Your task to perform on an android device: Open settings on Google Maps Image 0: 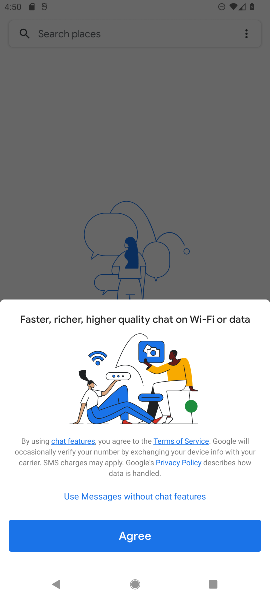
Step 0: press back button
Your task to perform on an android device: Open settings on Google Maps Image 1: 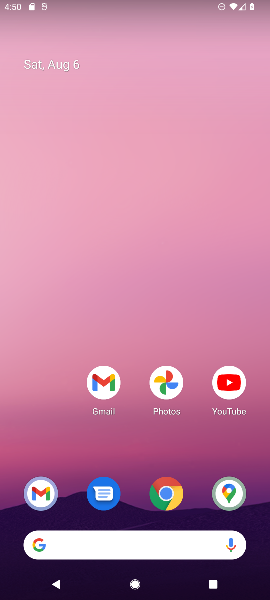
Step 1: drag from (168, 500) to (107, 80)
Your task to perform on an android device: Open settings on Google Maps Image 2: 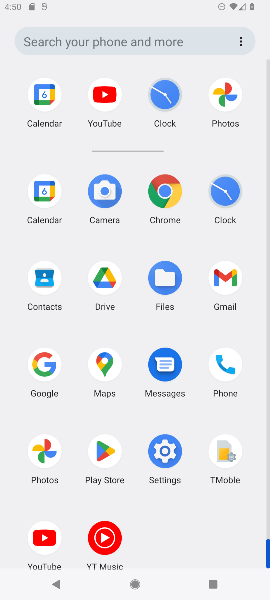
Step 2: drag from (158, 390) to (158, 130)
Your task to perform on an android device: Open settings on Google Maps Image 3: 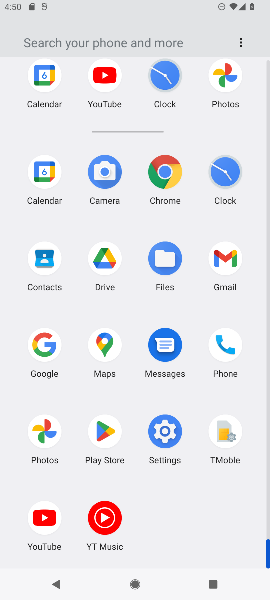
Step 3: click (101, 341)
Your task to perform on an android device: Open settings on Google Maps Image 4: 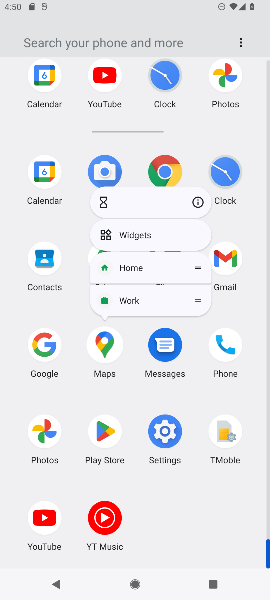
Step 4: click (106, 340)
Your task to perform on an android device: Open settings on Google Maps Image 5: 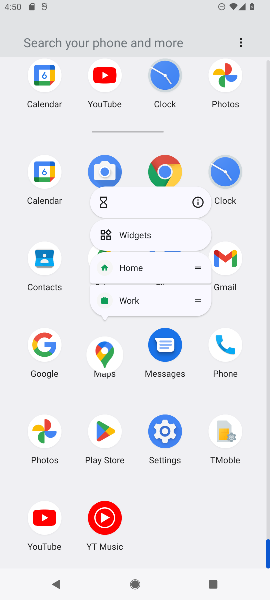
Step 5: click (106, 350)
Your task to perform on an android device: Open settings on Google Maps Image 6: 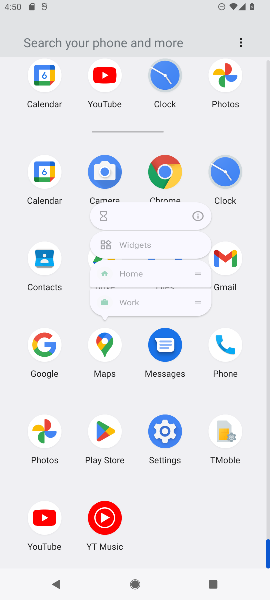
Step 6: click (106, 350)
Your task to perform on an android device: Open settings on Google Maps Image 7: 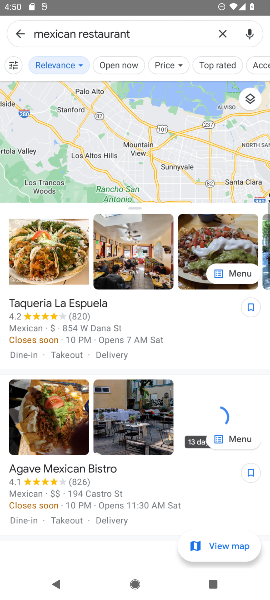
Step 7: click (106, 350)
Your task to perform on an android device: Open settings on Google Maps Image 8: 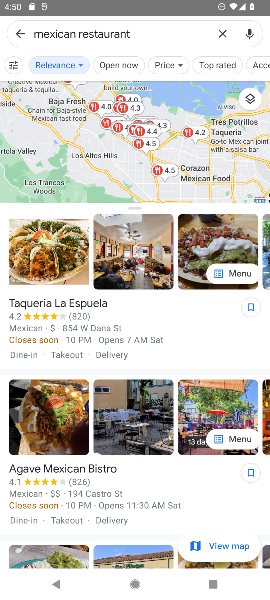
Step 8: click (19, 30)
Your task to perform on an android device: Open settings on Google Maps Image 9: 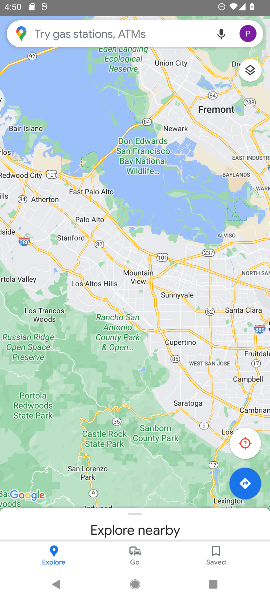
Step 9: click (246, 33)
Your task to perform on an android device: Open settings on Google Maps Image 10: 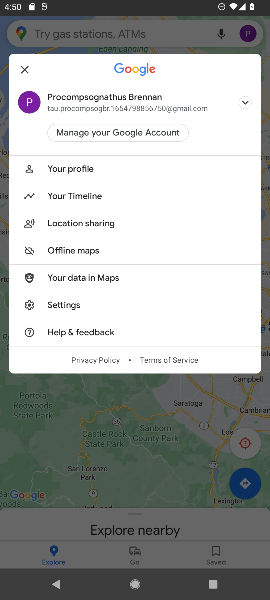
Step 10: click (61, 298)
Your task to perform on an android device: Open settings on Google Maps Image 11: 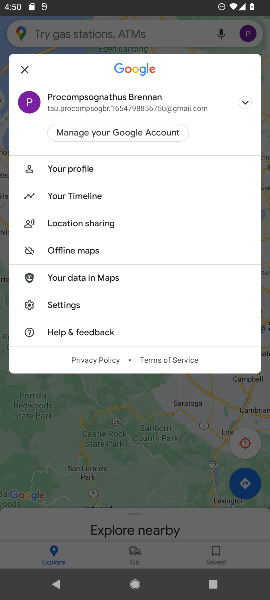
Step 11: click (61, 298)
Your task to perform on an android device: Open settings on Google Maps Image 12: 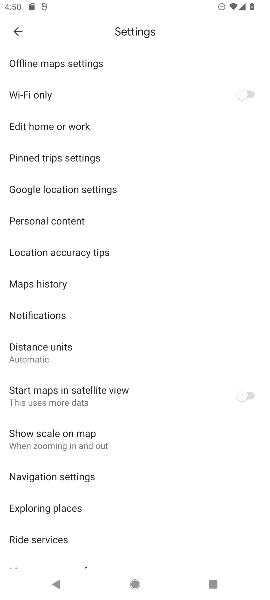
Step 12: task complete